Your task to perform on an android device: Check the weather Image 0: 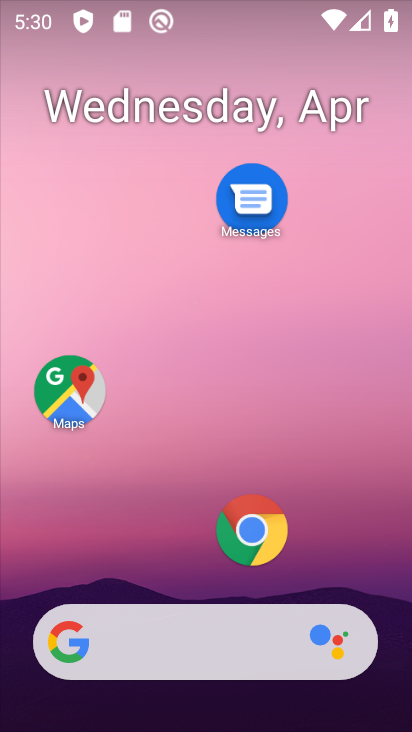
Step 0: drag from (181, 580) to (288, 35)
Your task to perform on an android device: Check the weather Image 1: 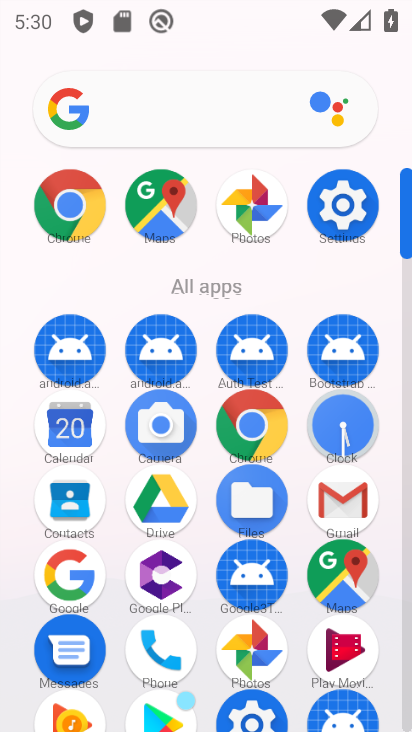
Step 1: click (70, 577)
Your task to perform on an android device: Check the weather Image 2: 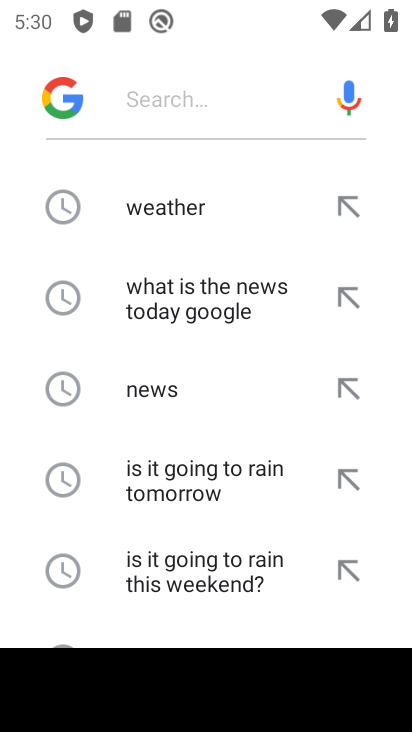
Step 2: click (200, 208)
Your task to perform on an android device: Check the weather Image 3: 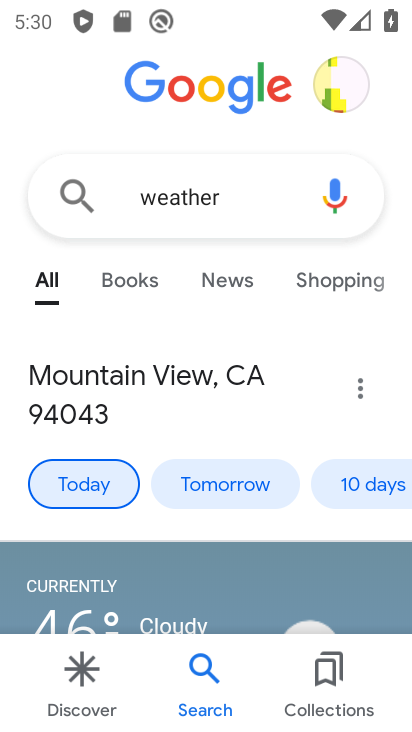
Step 3: task complete